Your task to perform on an android device: Open maps Image 0: 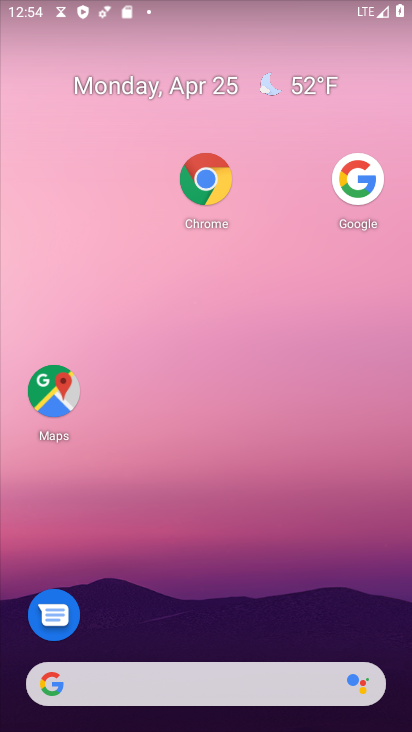
Step 0: drag from (179, 684) to (351, 36)
Your task to perform on an android device: Open maps Image 1: 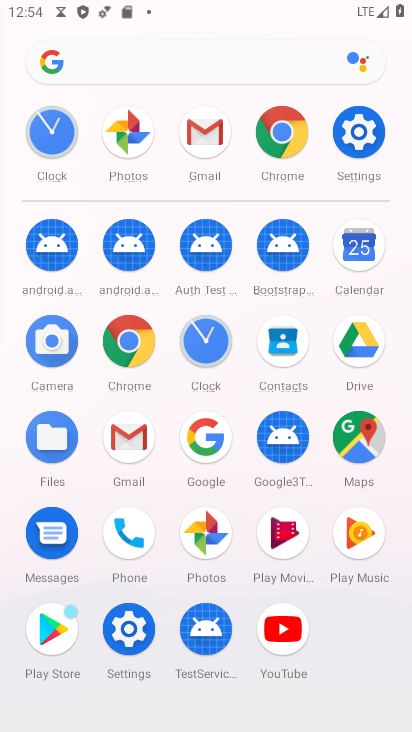
Step 1: click (355, 438)
Your task to perform on an android device: Open maps Image 2: 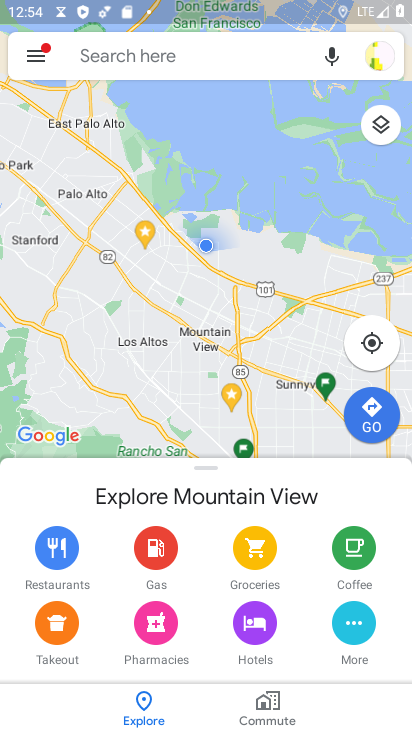
Step 2: task complete